Your task to perform on an android device: Go to CNN.com Image 0: 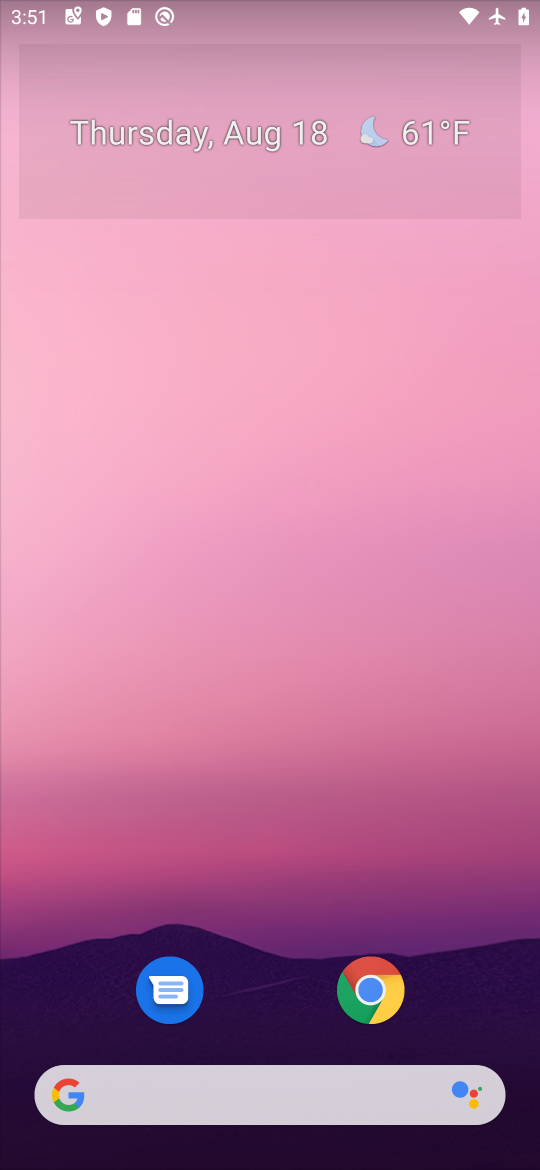
Step 0: drag from (277, 869) to (368, 137)
Your task to perform on an android device: Go to CNN.com Image 1: 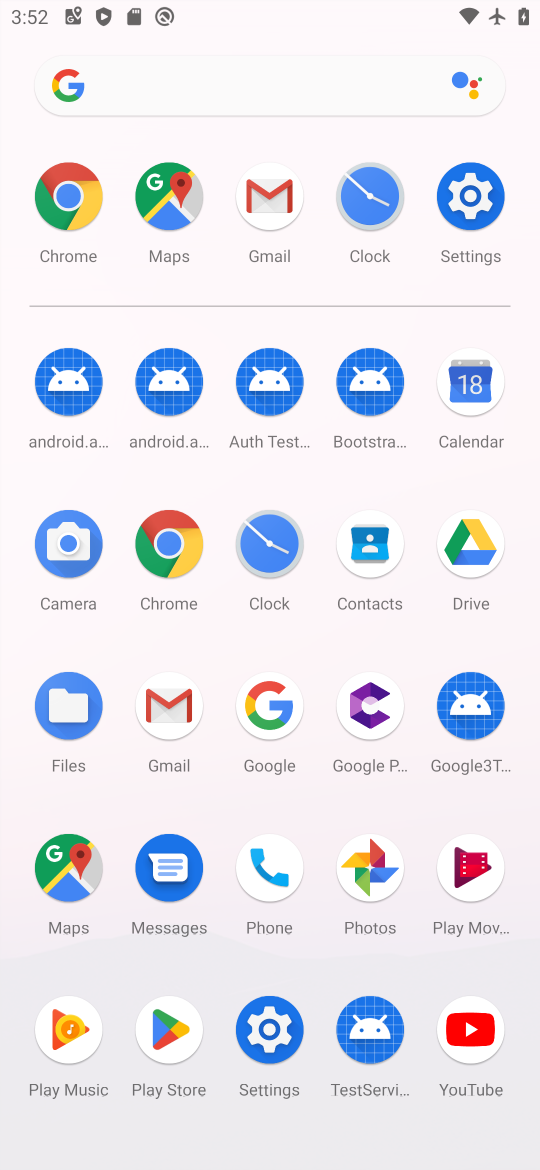
Step 1: click (166, 541)
Your task to perform on an android device: Go to CNN.com Image 2: 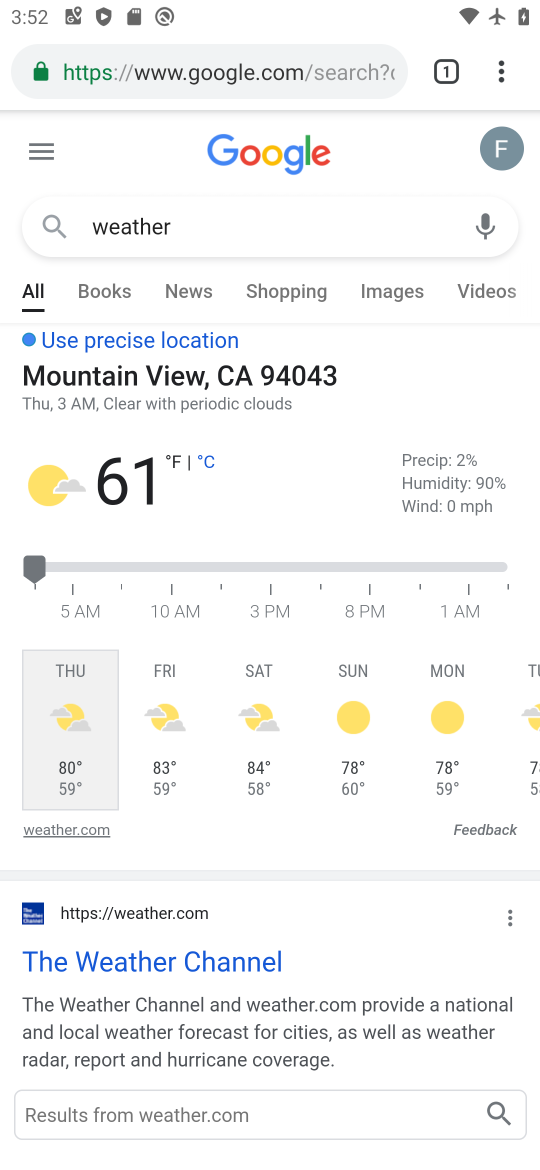
Step 2: click (210, 72)
Your task to perform on an android device: Go to CNN.com Image 3: 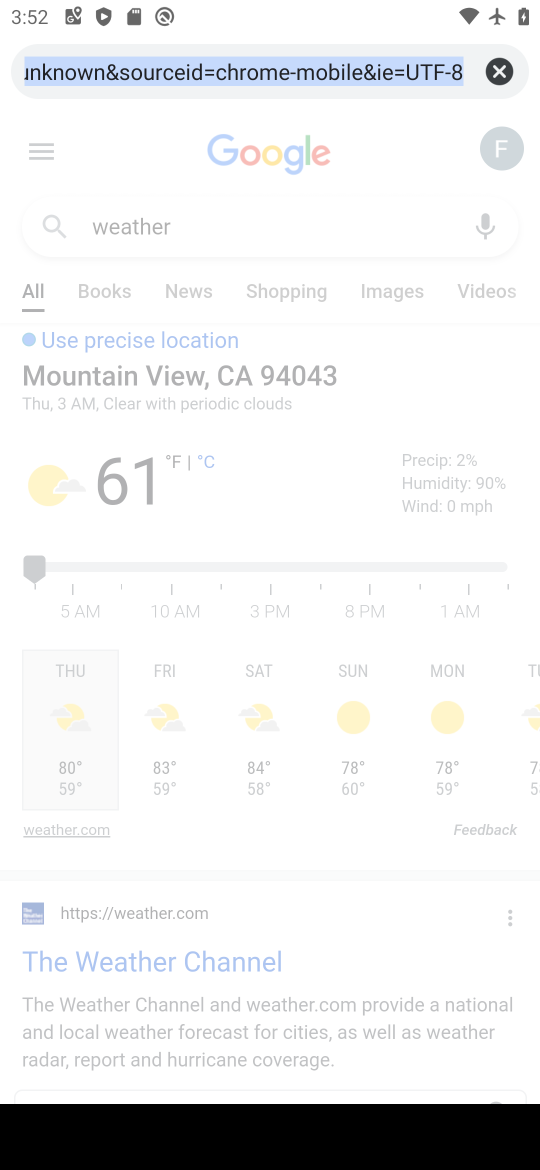
Step 3: type "cnn.com"
Your task to perform on an android device: Go to CNN.com Image 4: 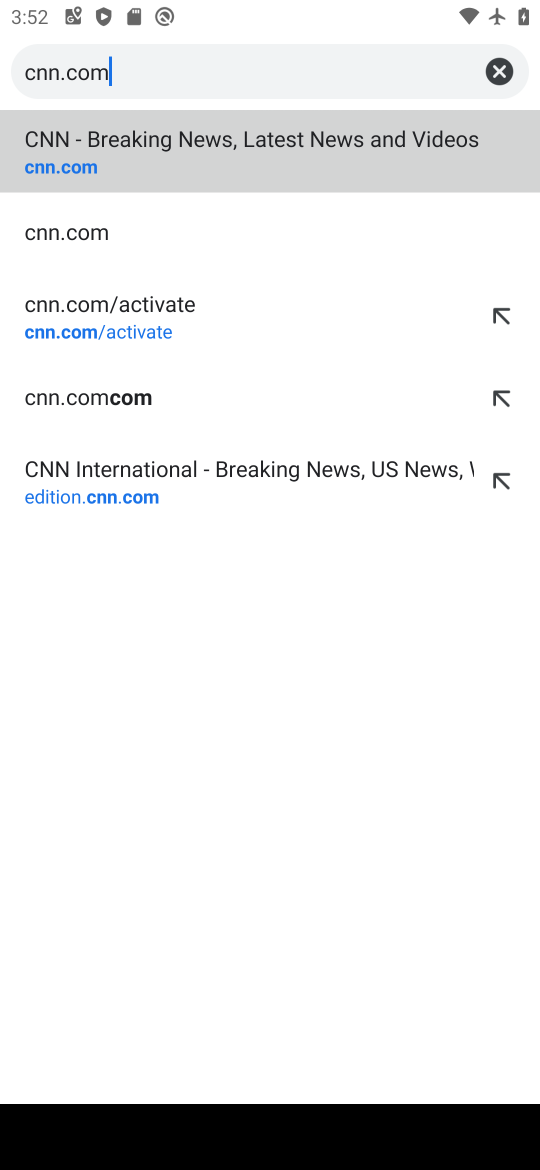
Step 4: click (90, 151)
Your task to perform on an android device: Go to CNN.com Image 5: 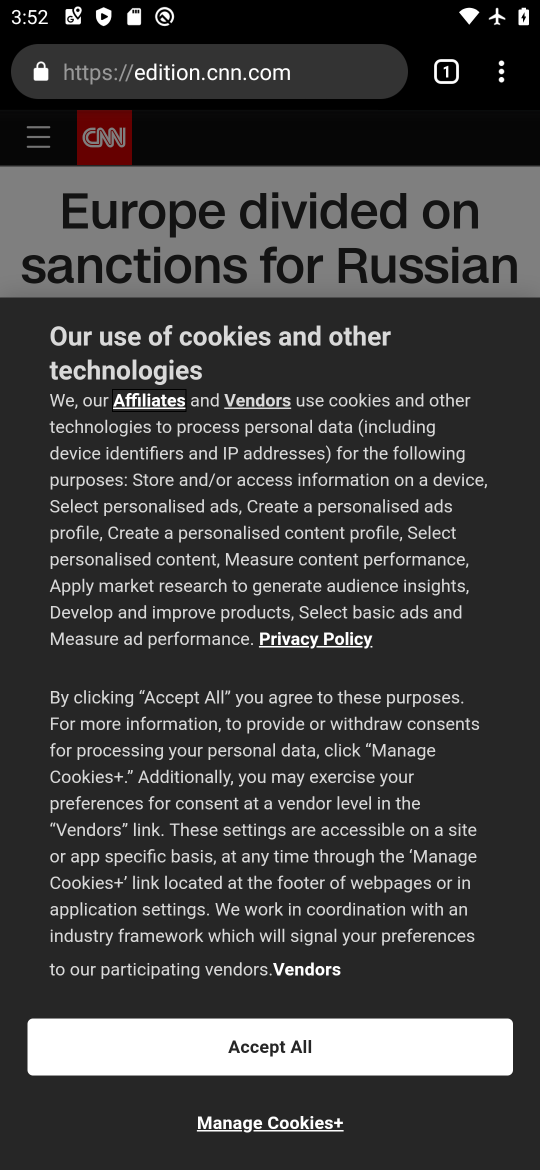
Step 5: task complete